Your task to perform on an android device: open a bookmark in the chrome app Image 0: 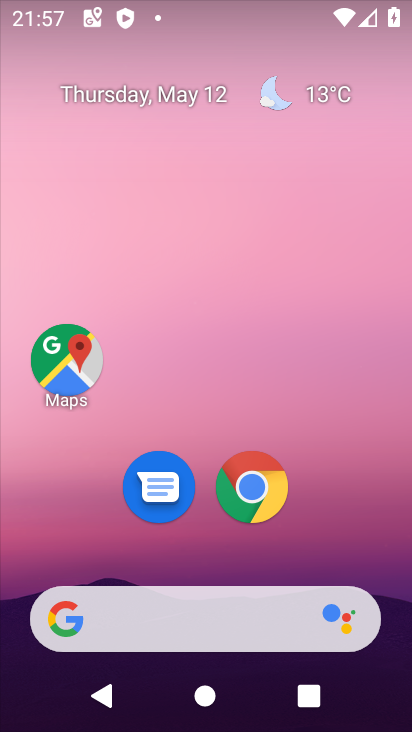
Step 0: click (256, 474)
Your task to perform on an android device: open a bookmark in the chrome app Image 1: 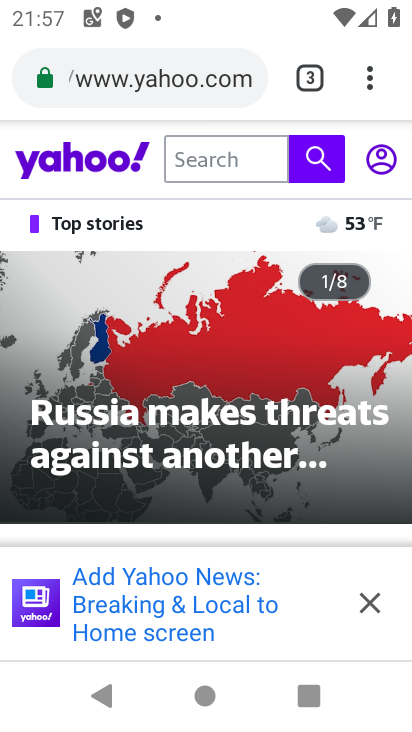
Step 1: click (390, 74)
Your task to perform on an android device: open a bookmark in the chrome app Image 2: 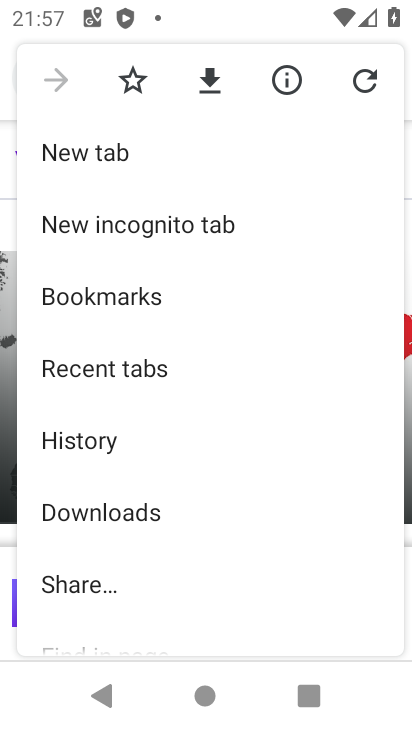
Step 2: click (142, 311)
Your task to perform on an android device: open a bookmark in the chrome app Image 3: 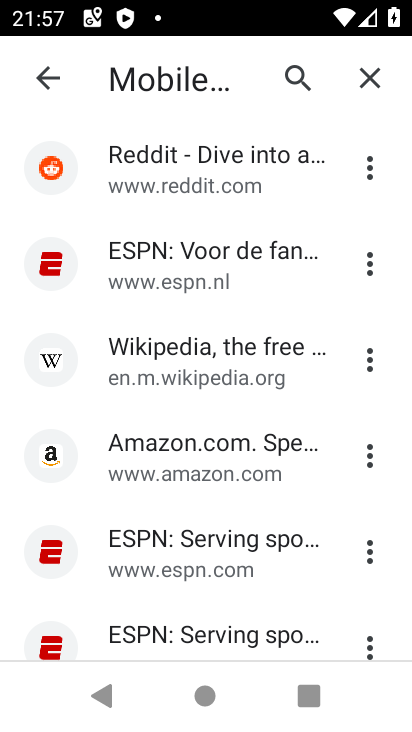
Step 3: click (202, 482)
Your task to perform on an android device: open a bookmark in the chrome app Image 4: 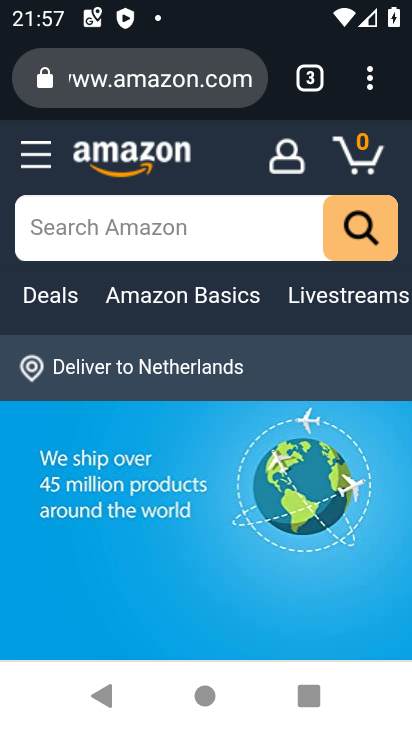
Step 4: task complete